Your task to perform on an android device: check data usage Image 0: 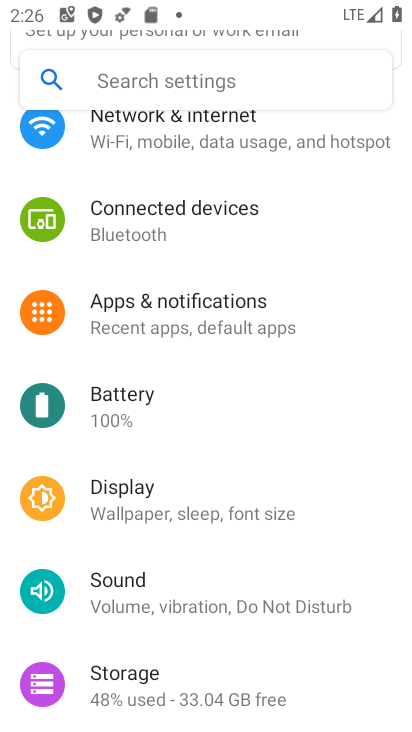
Step 0: click (144, 133)
Your task to perform on an android device: check data usage Image 1: 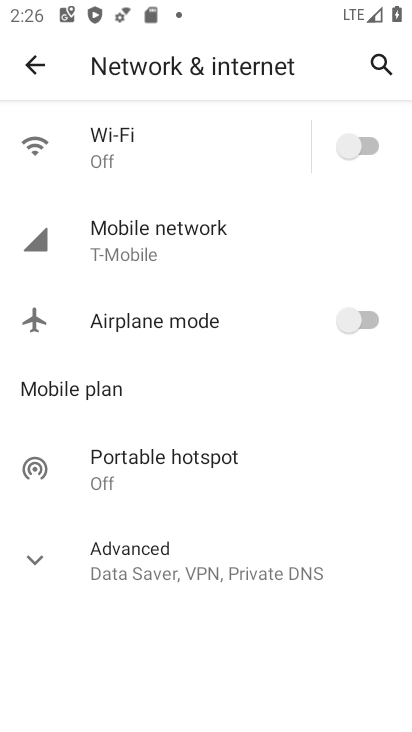
Step 1: click (148, 238)
Your task to perform on an android device: check data usage Image 2: 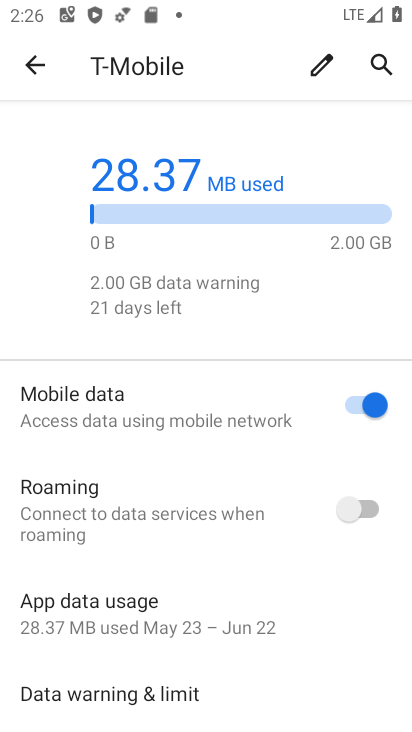
Step 2: task complete